Your task to perform on an android device: What's US dollar exchange rate against the British Pound? Image 0: 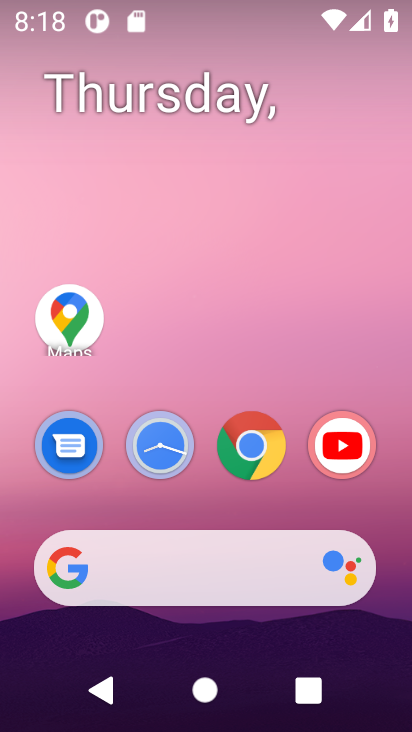
Step 0: click (186, 565)
Your task to perform on an android device: What's US dollar exchange rate against the British Pound? Image 1: 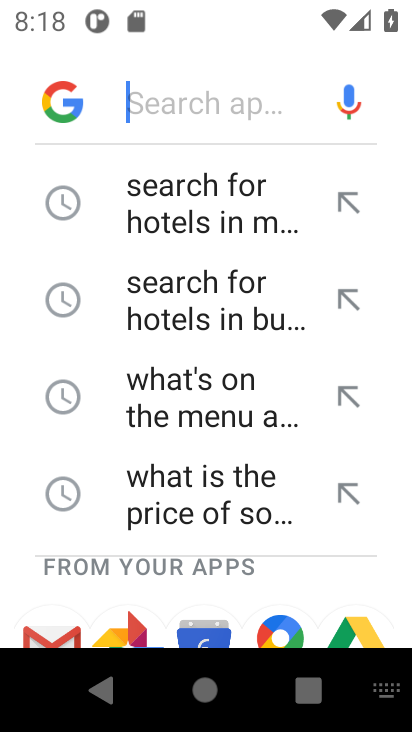
Step 1: type "What's US dollar exchange rate against the British Pound?"
Your task to perform on an android device: What's US dollar exchange rate against the British Pound? Image 2: 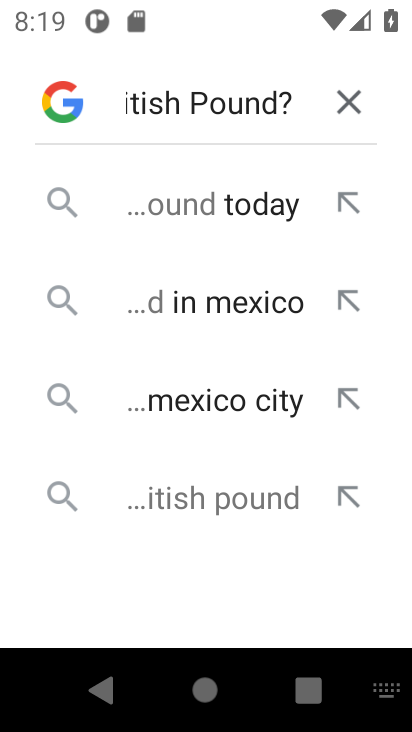
Step 2: click (234, 174)
Your task to perform on an android device: What's US dollar exchange rate against the British Pound? Image 3: 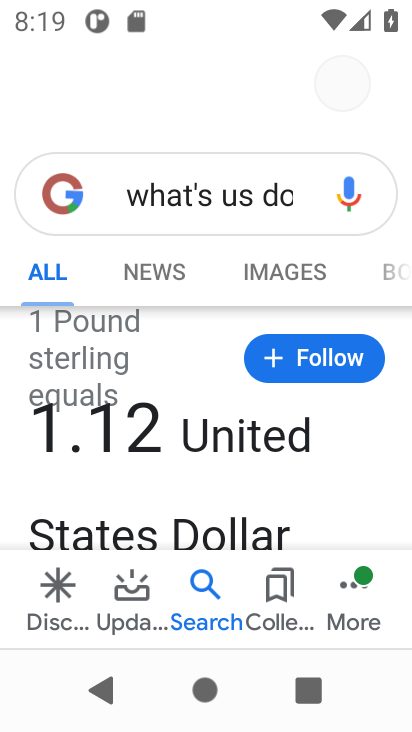
Step 3: task complete